Your task to perform on an android device: check android version Image 0: 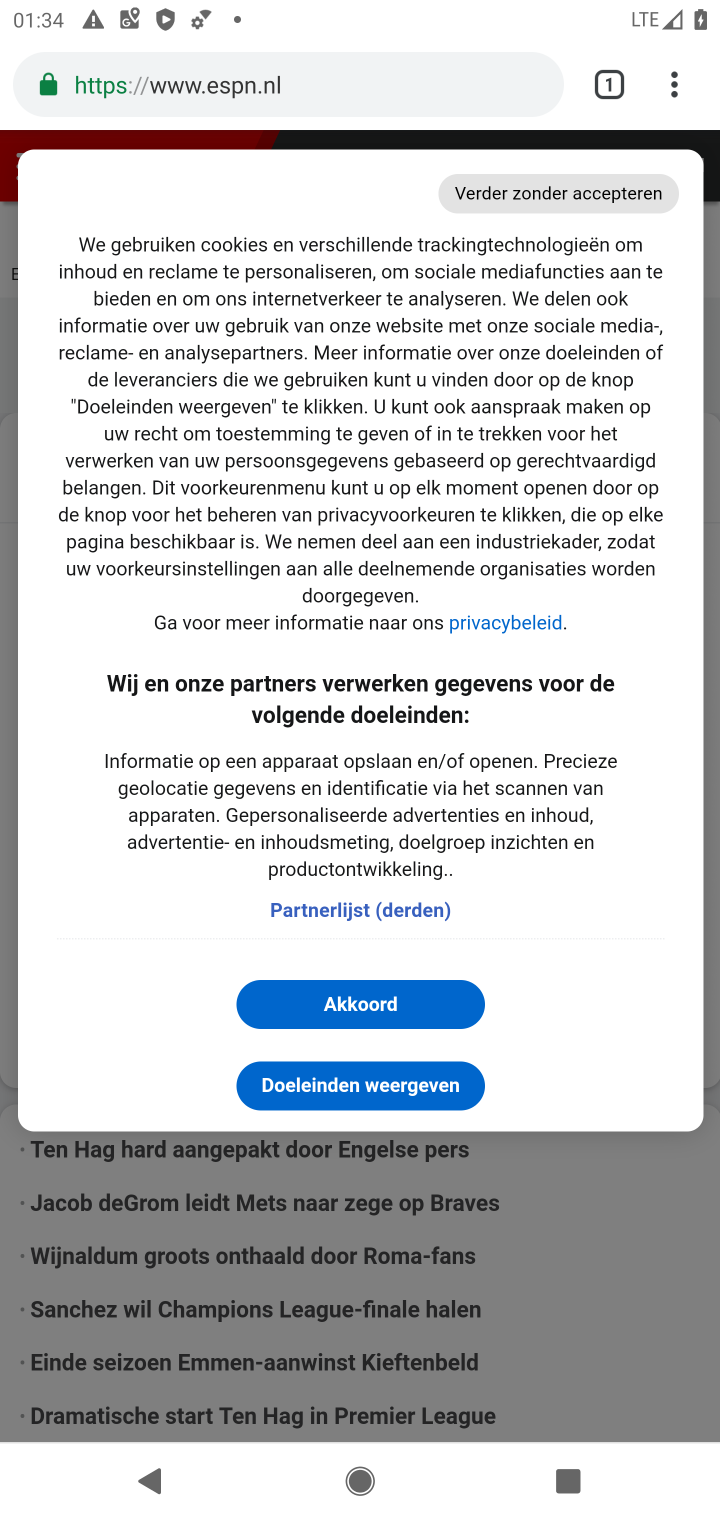
Step 0: press home button
Your task to perform on an android device: check android version Image 1: 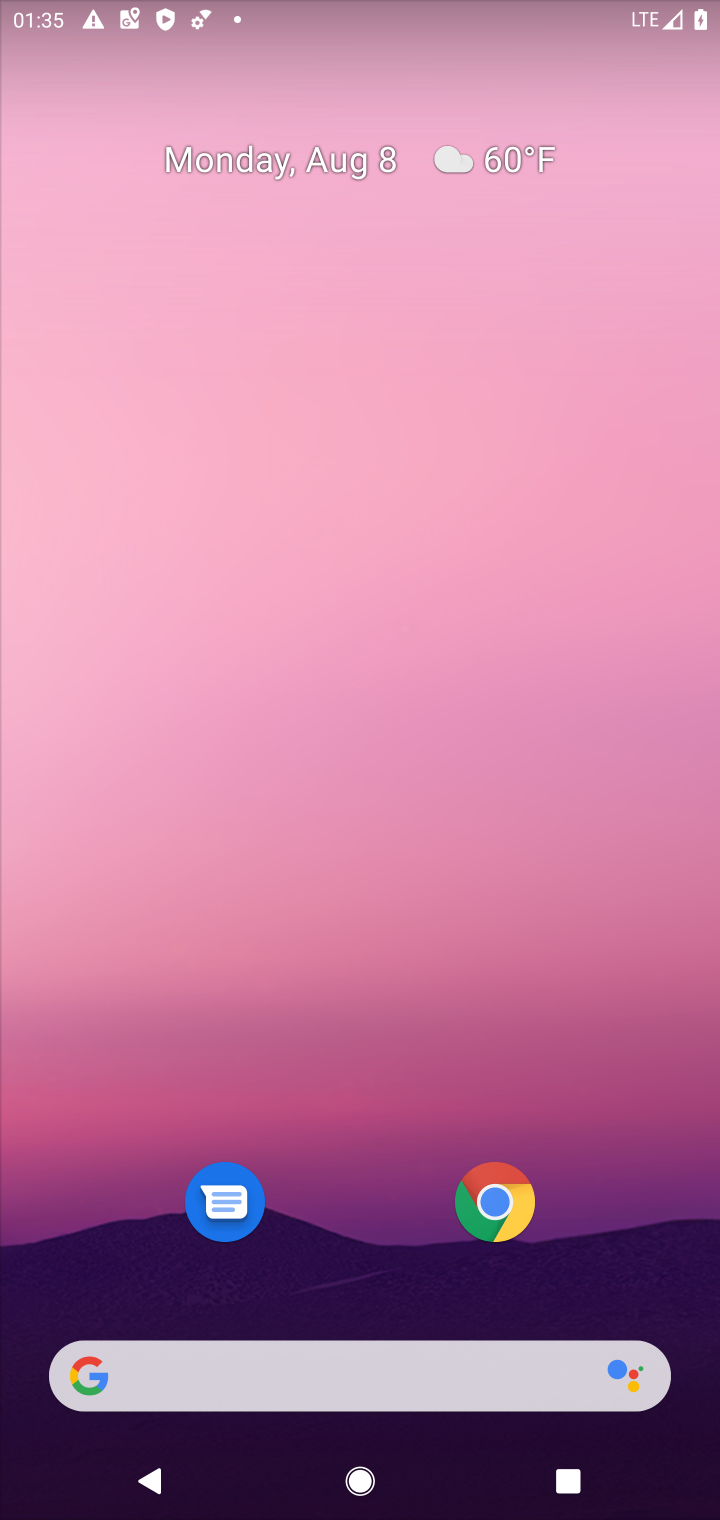
Step 1: drag from (343, 1282) to (428, 347)
Your task to perform on an android device: check android version Image 2: 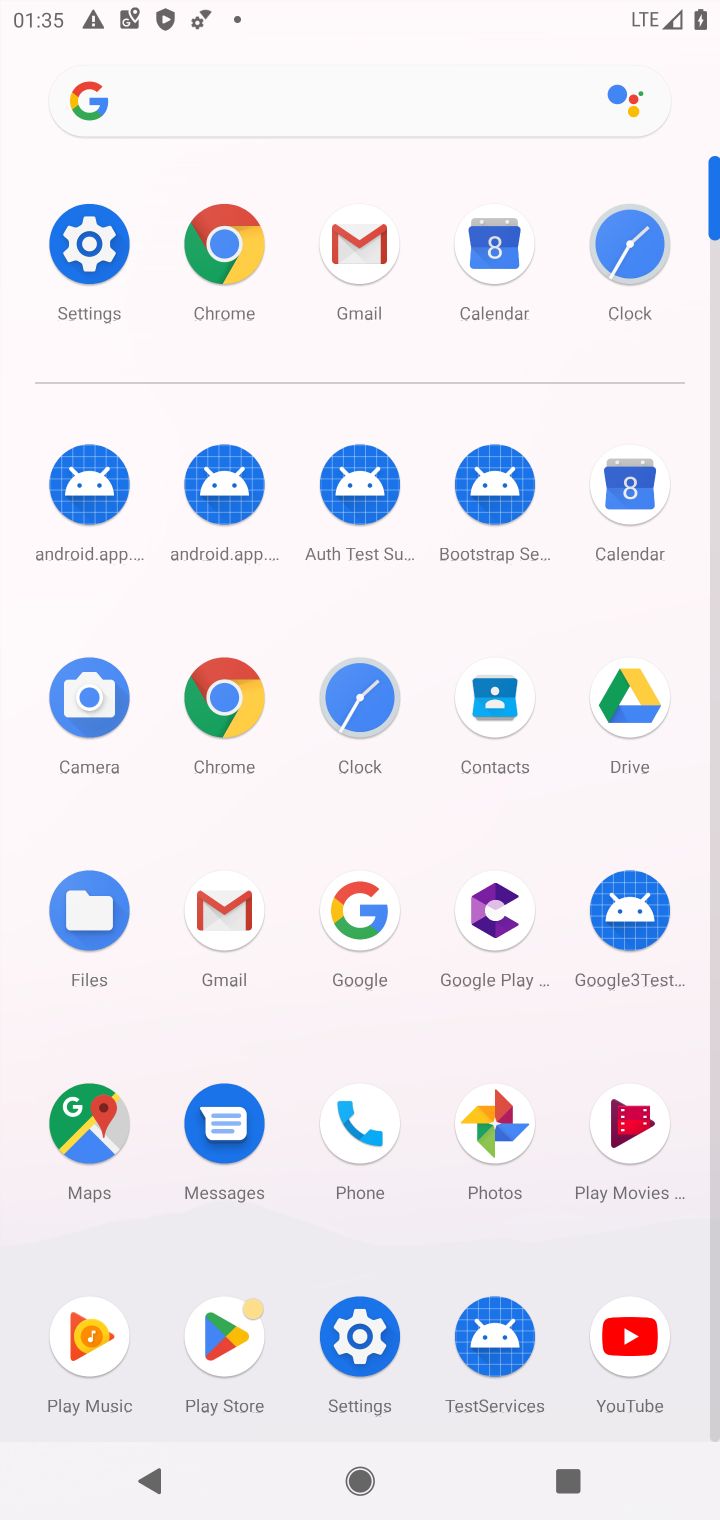
Step 2: click (364, 1335)
Your task to perform on an android device: check android version Image 3: 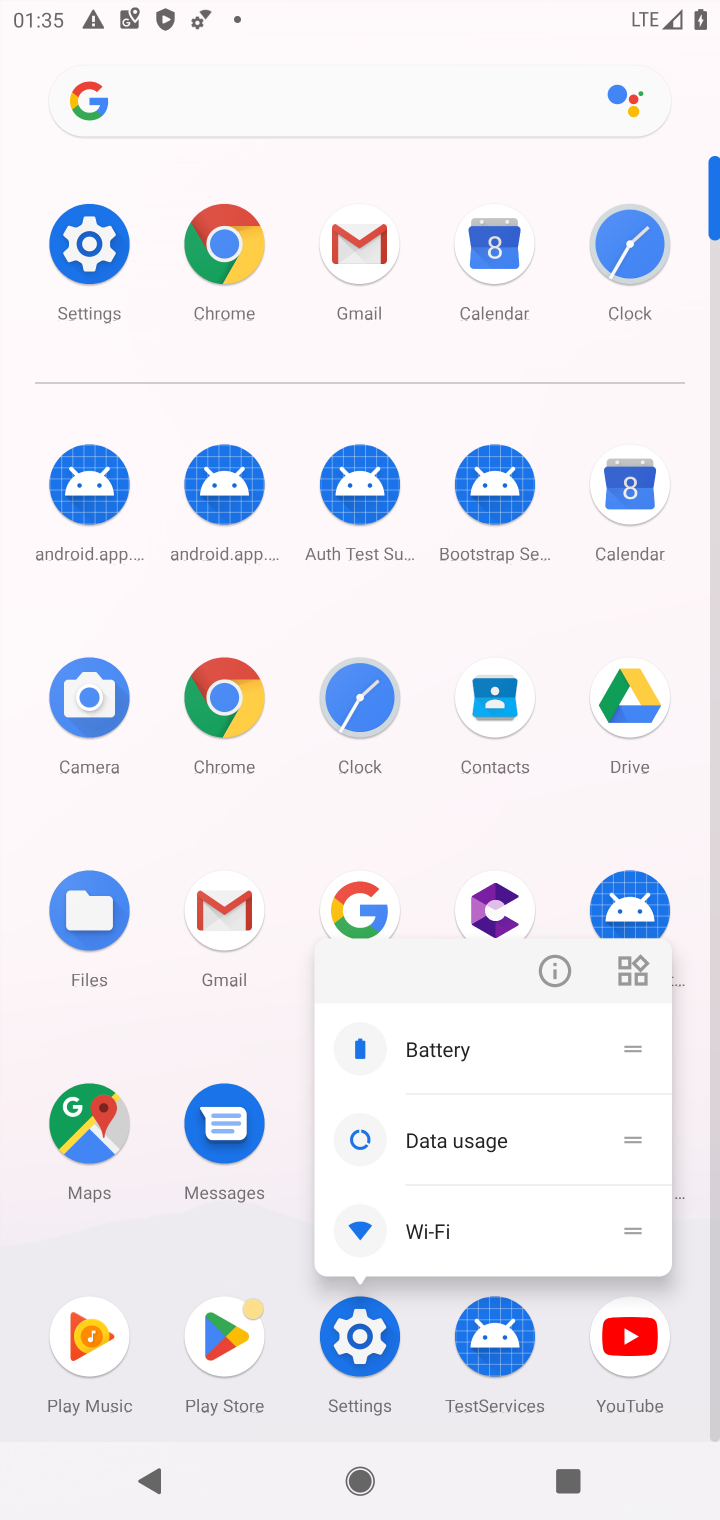
Step 3: click (364, 1335)
Your task to perform on an android device: check android version Image 4: 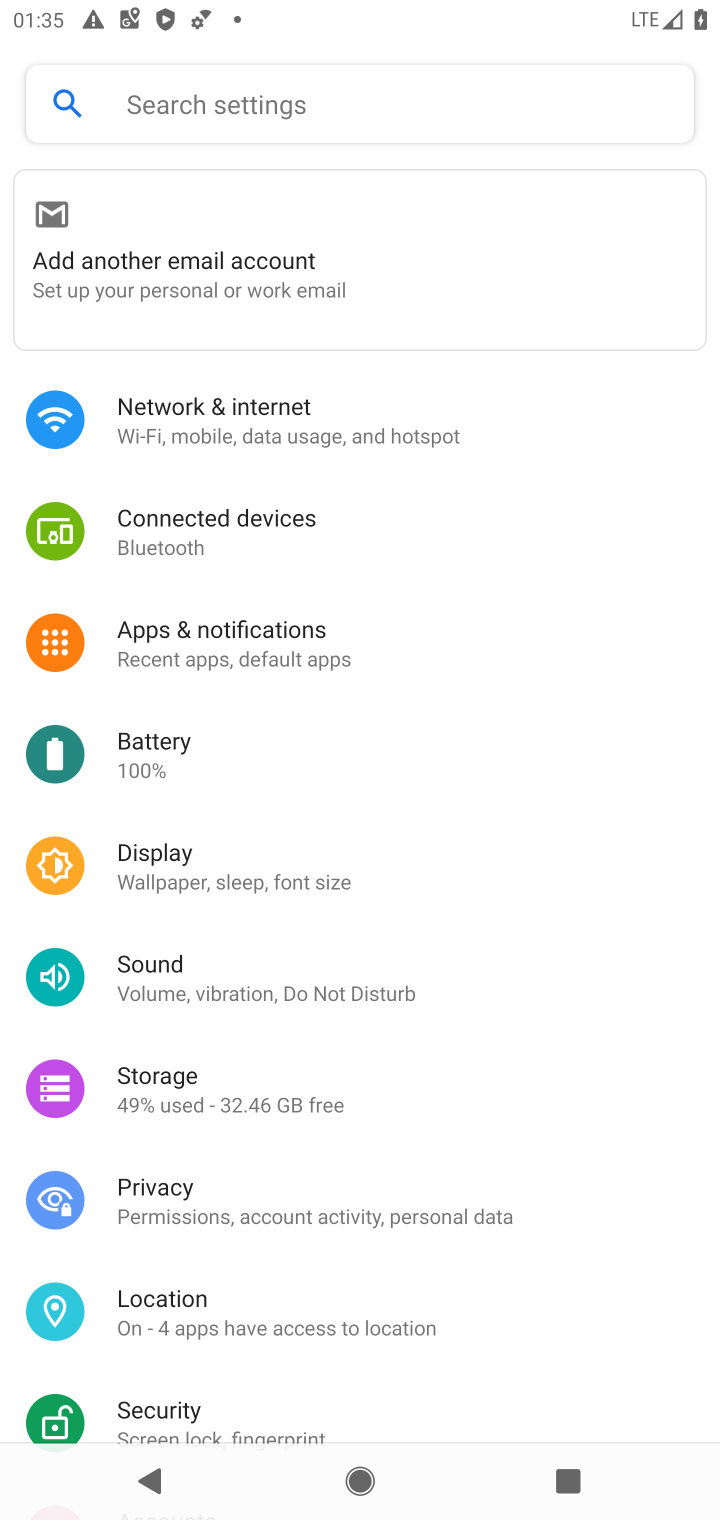
Step 4: drag from (280, 1300) to (188, 594)
Your task to perform on an android device: check android version Image 5: 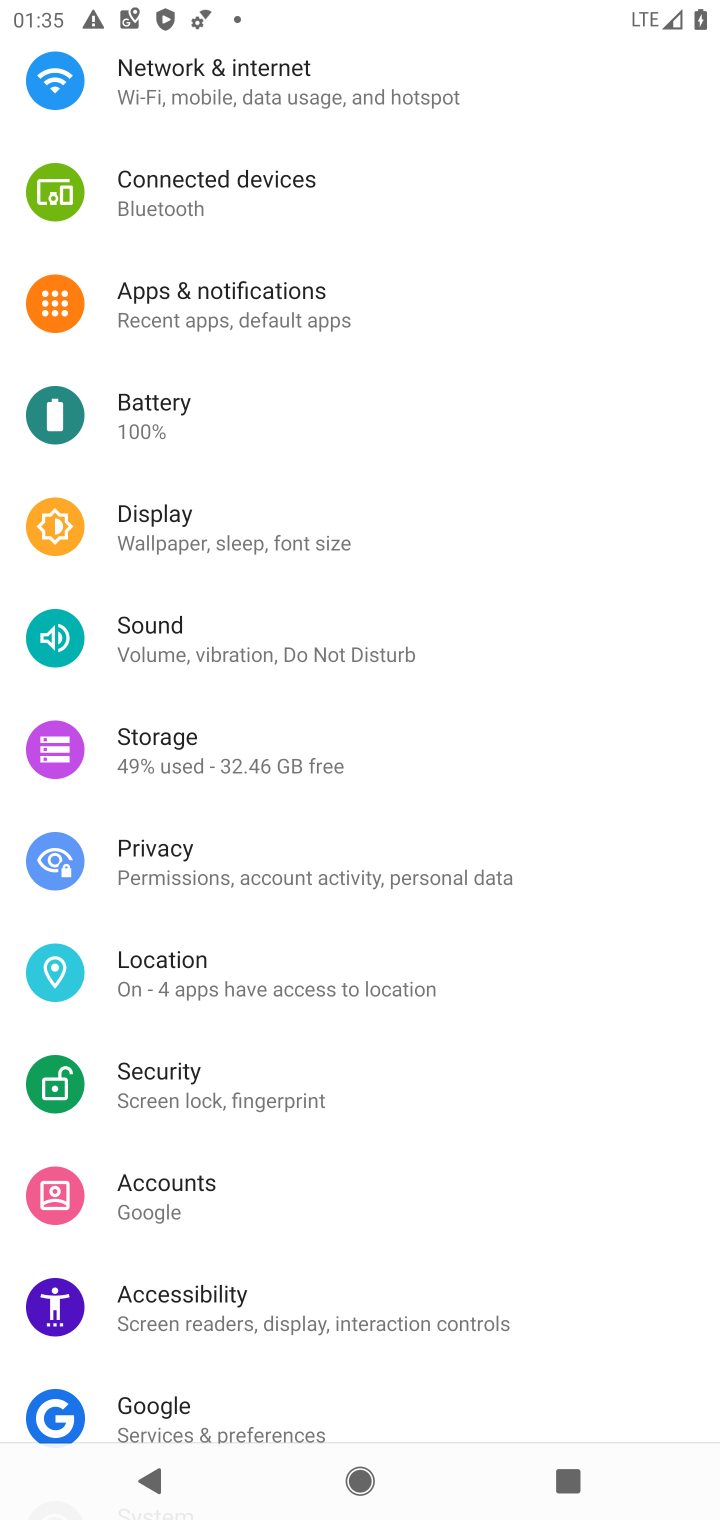
Step 5: drag from (266, 1132) to (293, 781)
Your task to perform on an android device: check android version Image 6: 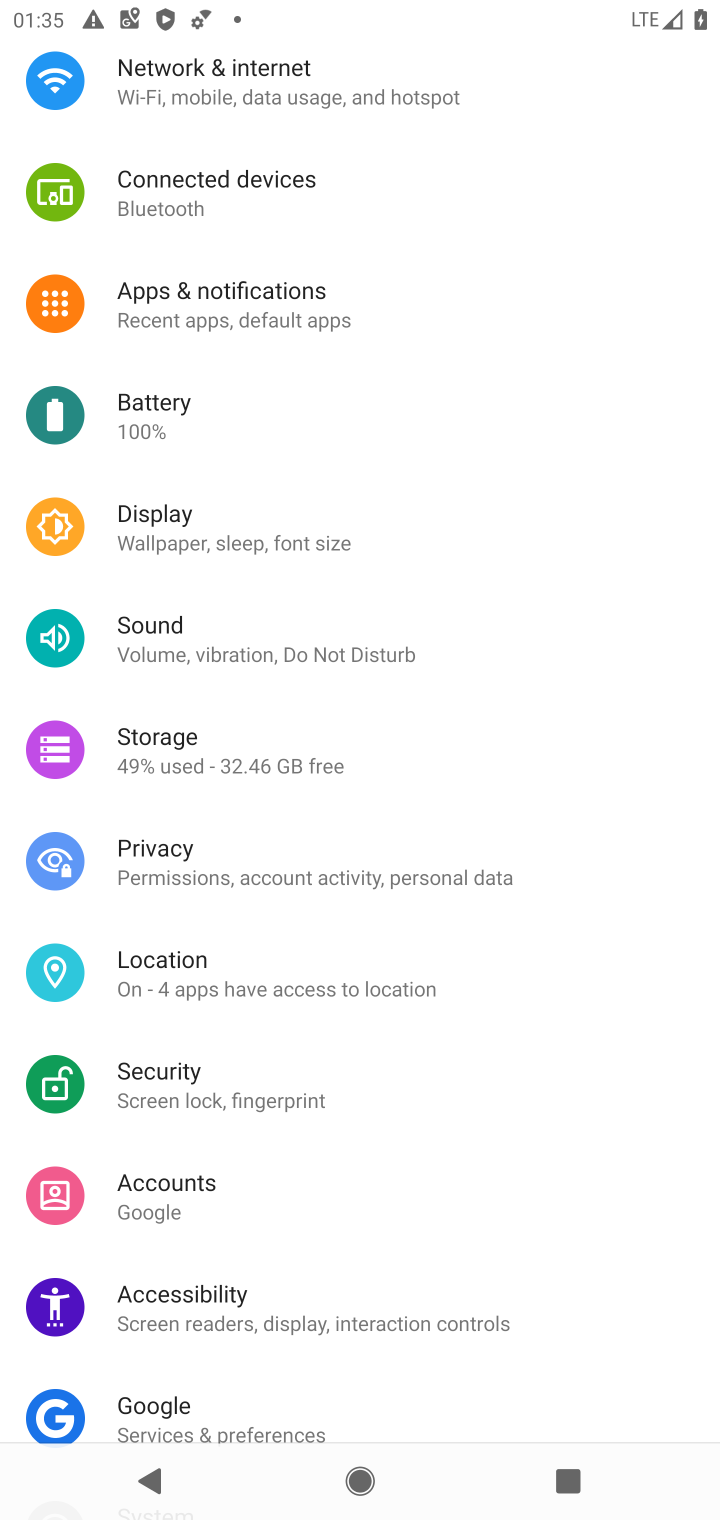
Step 6: drag from (202, 1122) to (207, 744)
Your task to perform on an android device: check android version Image 7: 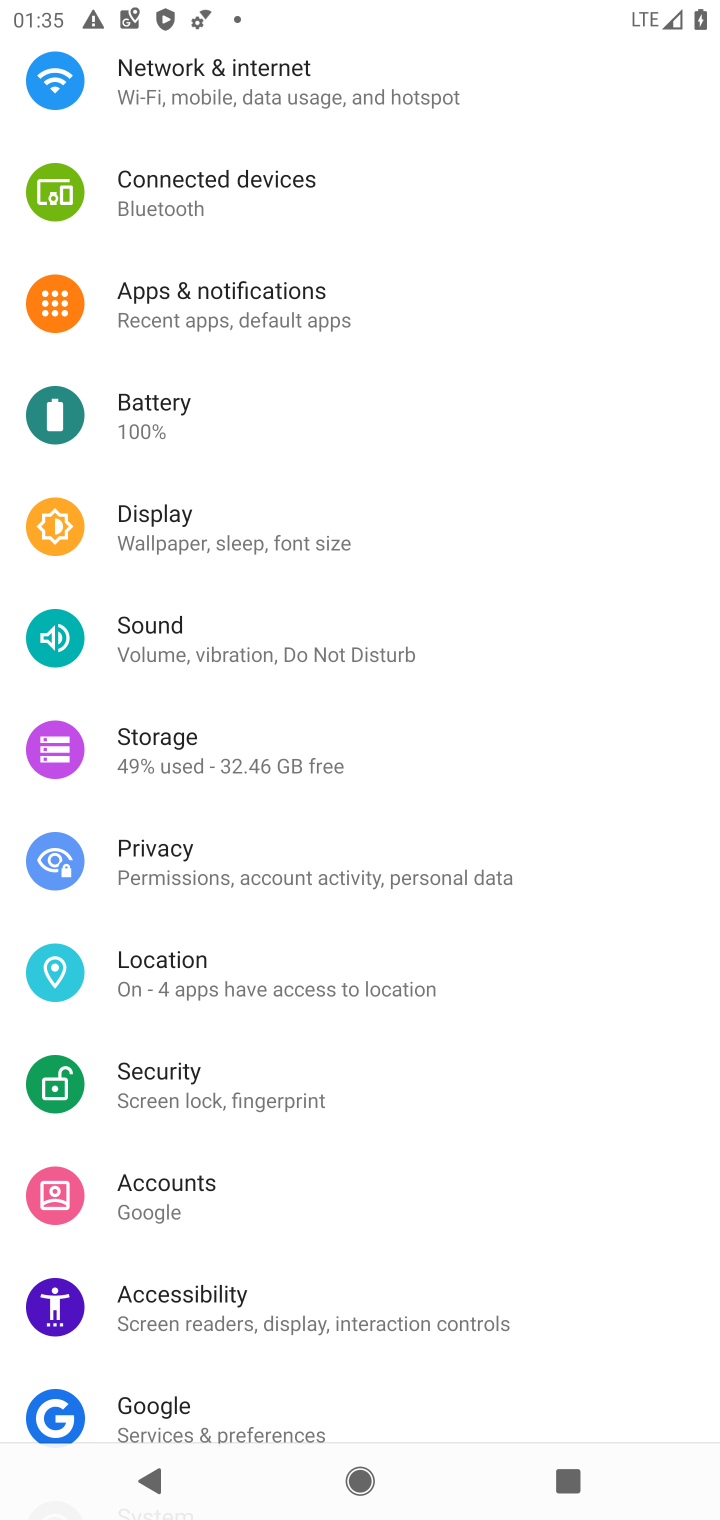
Step 7: drag from (308, 1080) to (447, 415)
Your task to perform on an android device: check android version Image 8: 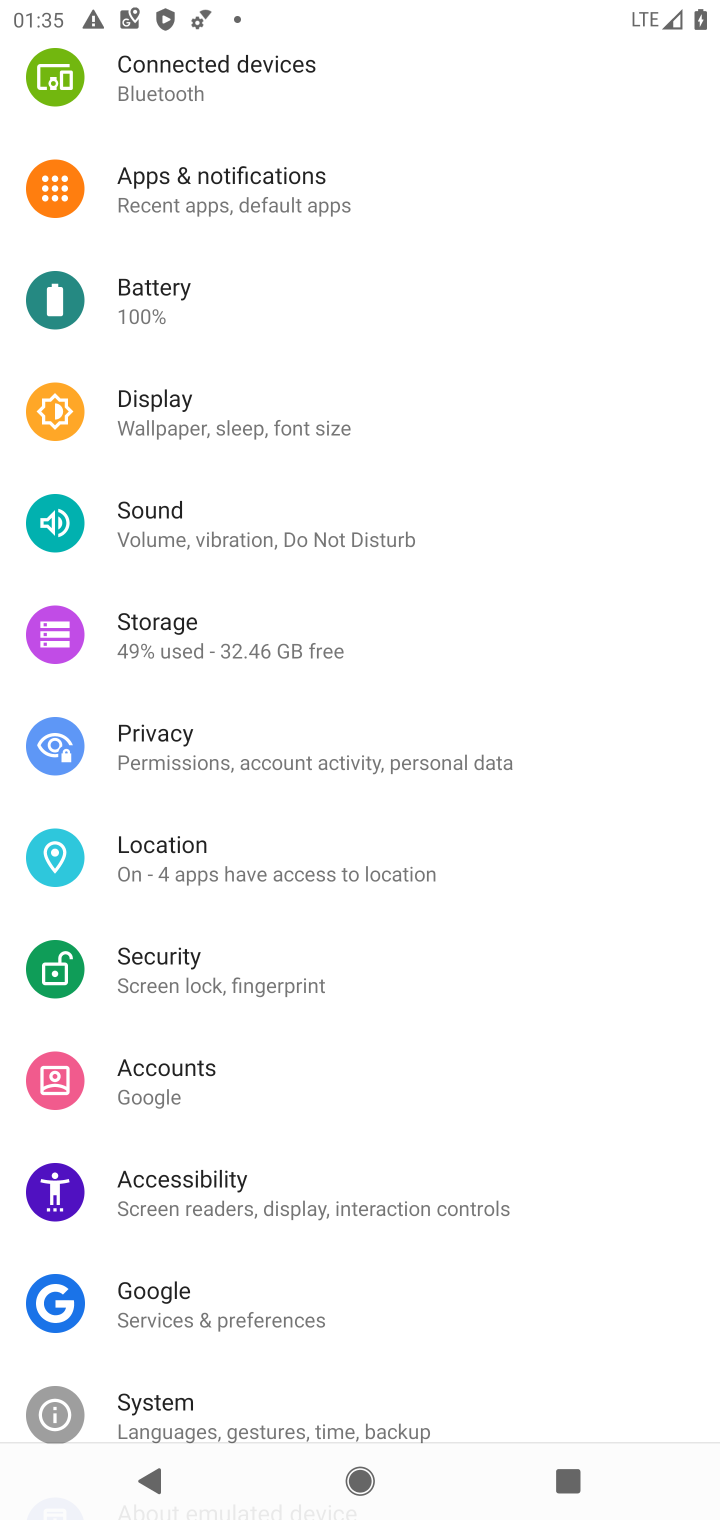
Step 8: drag from (370, 1317) to (453, 569)
Your task to perform on an android device: check android version Image 9: 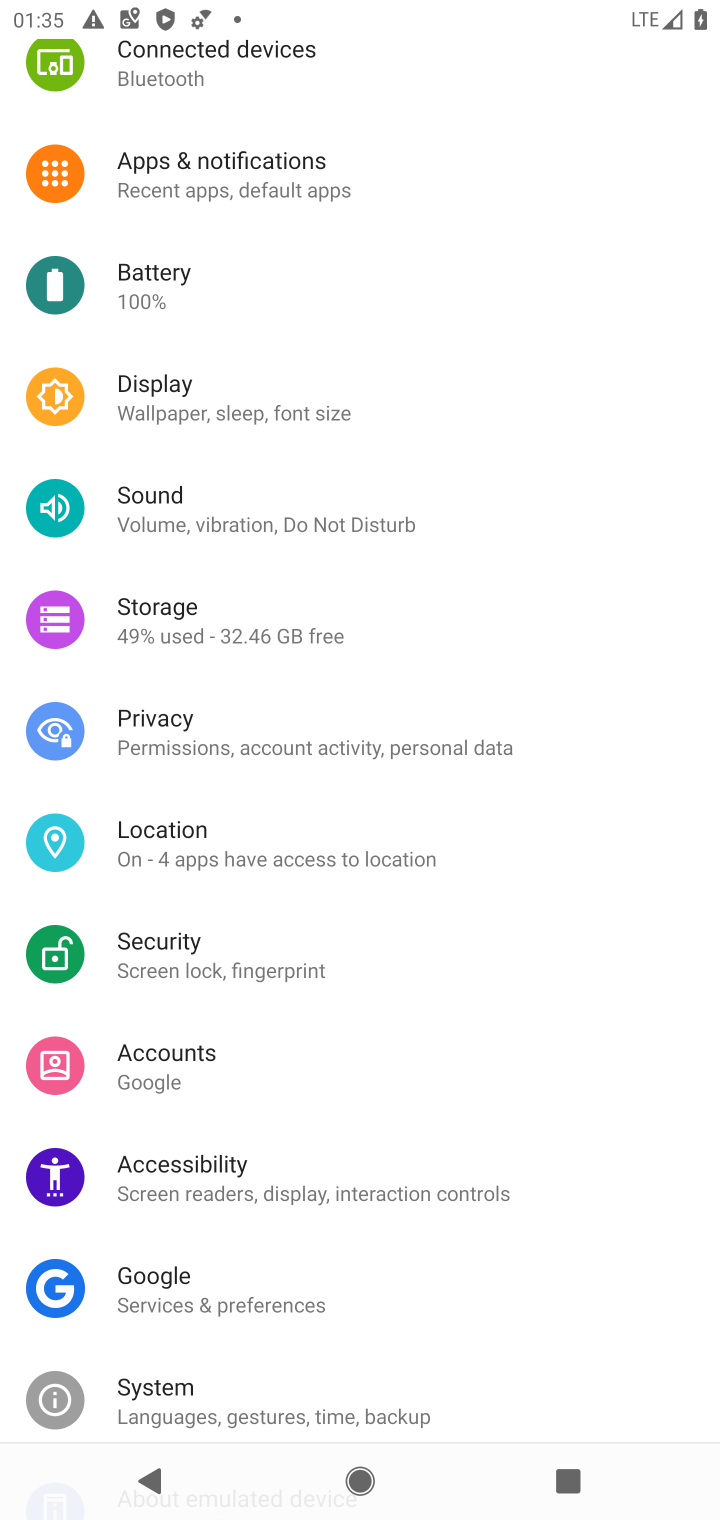
Step 9: drag from (140, 1110) to (63, 691)
Your task to perform on an android device: check android version Image 10: 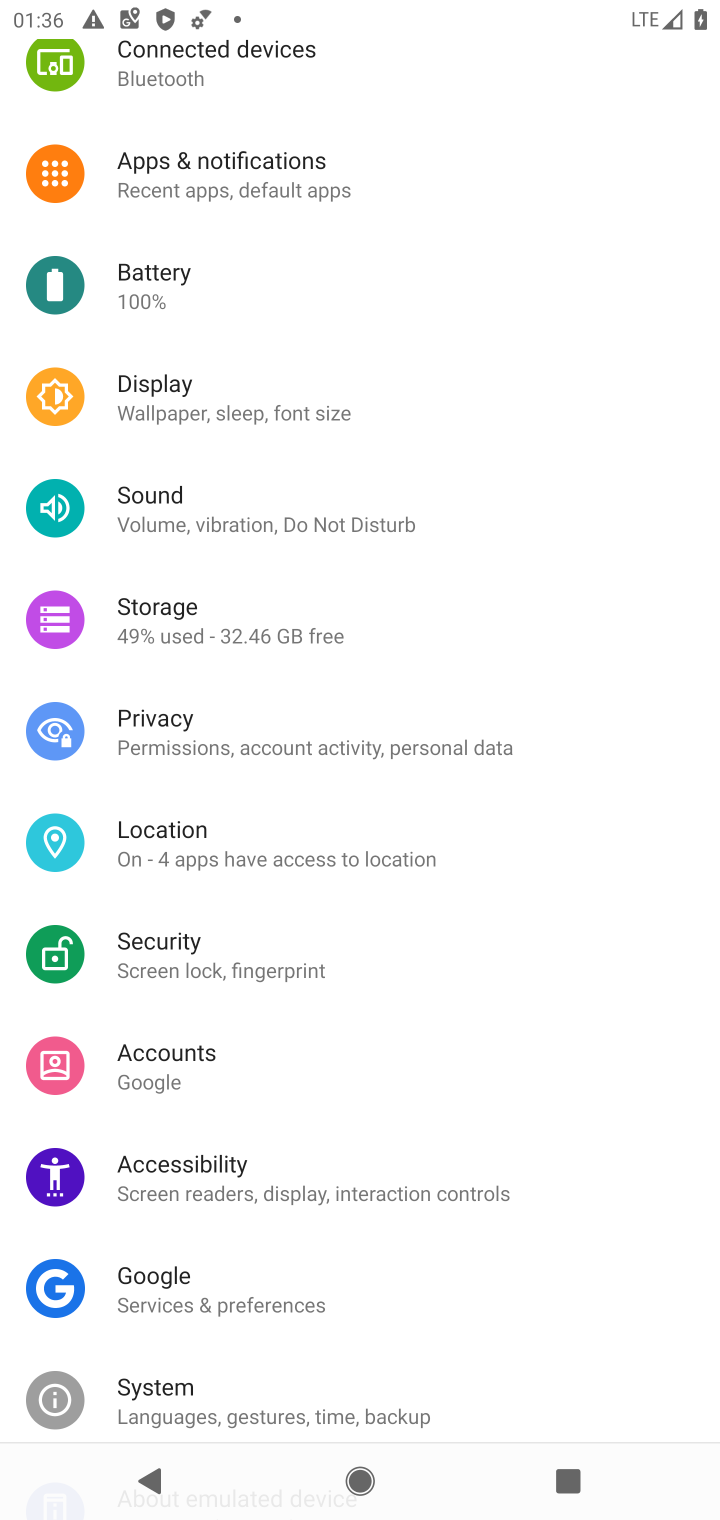
Step 10: drag from (252, 272) to (252, 105)
Your task to perform on an android device: check android version Image 11: 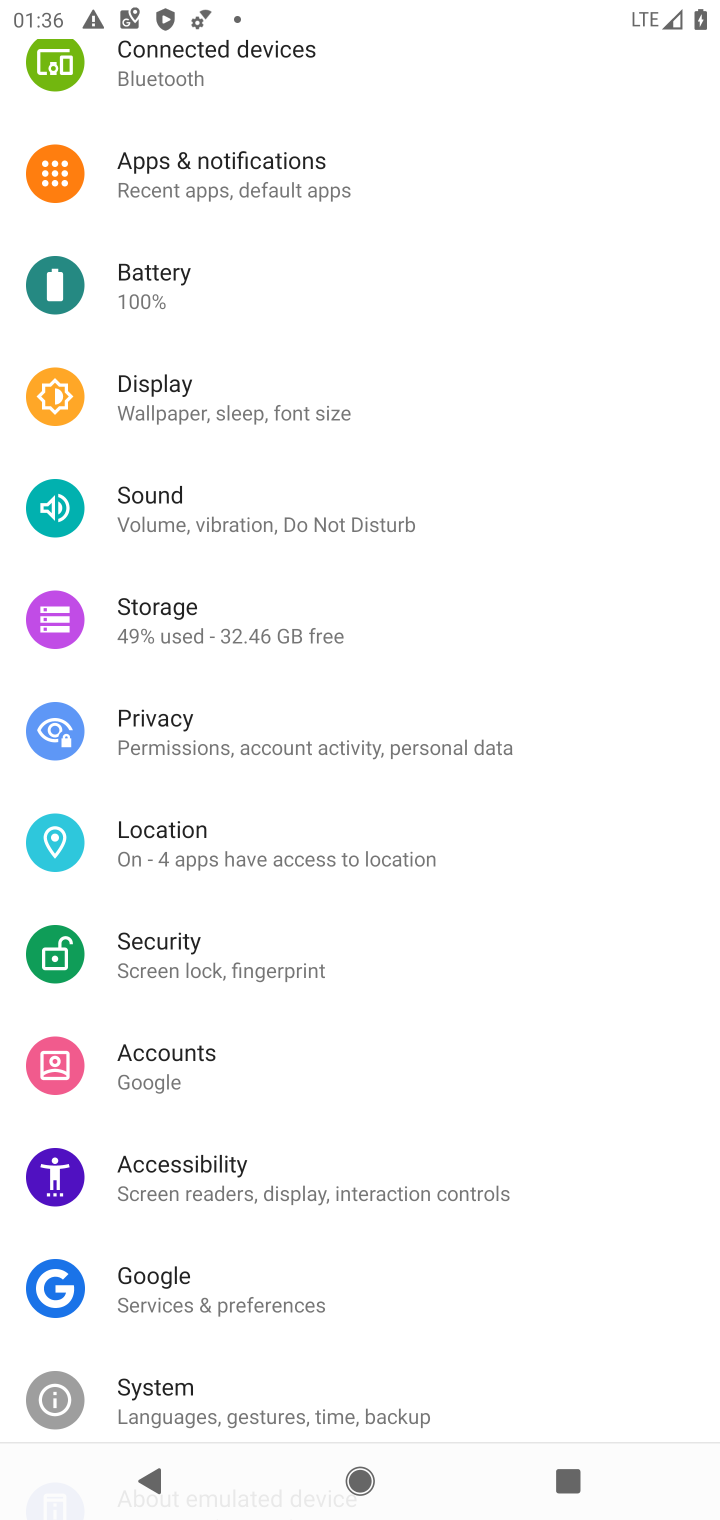
Step 11: drag from (256, 804) to (209, 179)
Your task to perform on an android device: check android version Image 12: 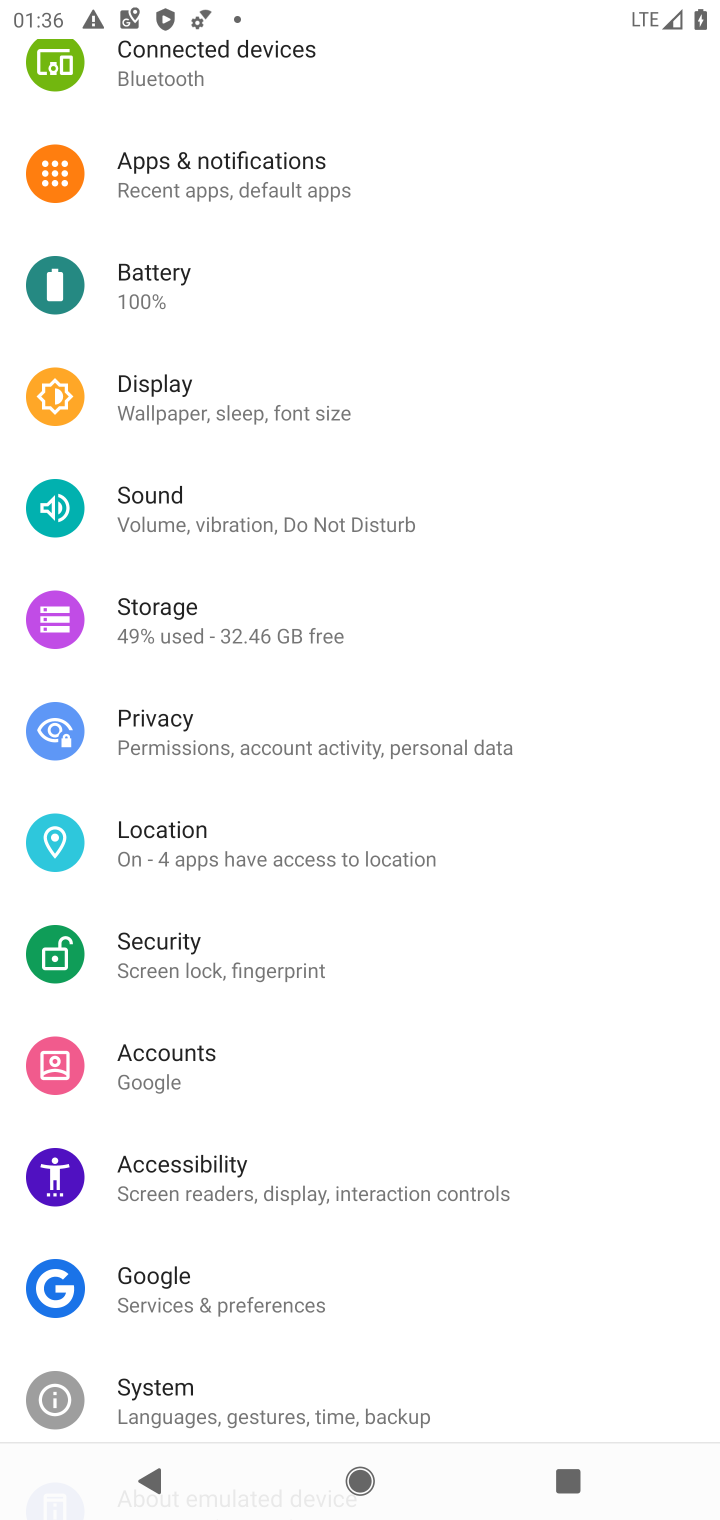
Step 12: drag from (274, 1325) to (161, 335)
Your task to perform on an android device: check android version Image 13: 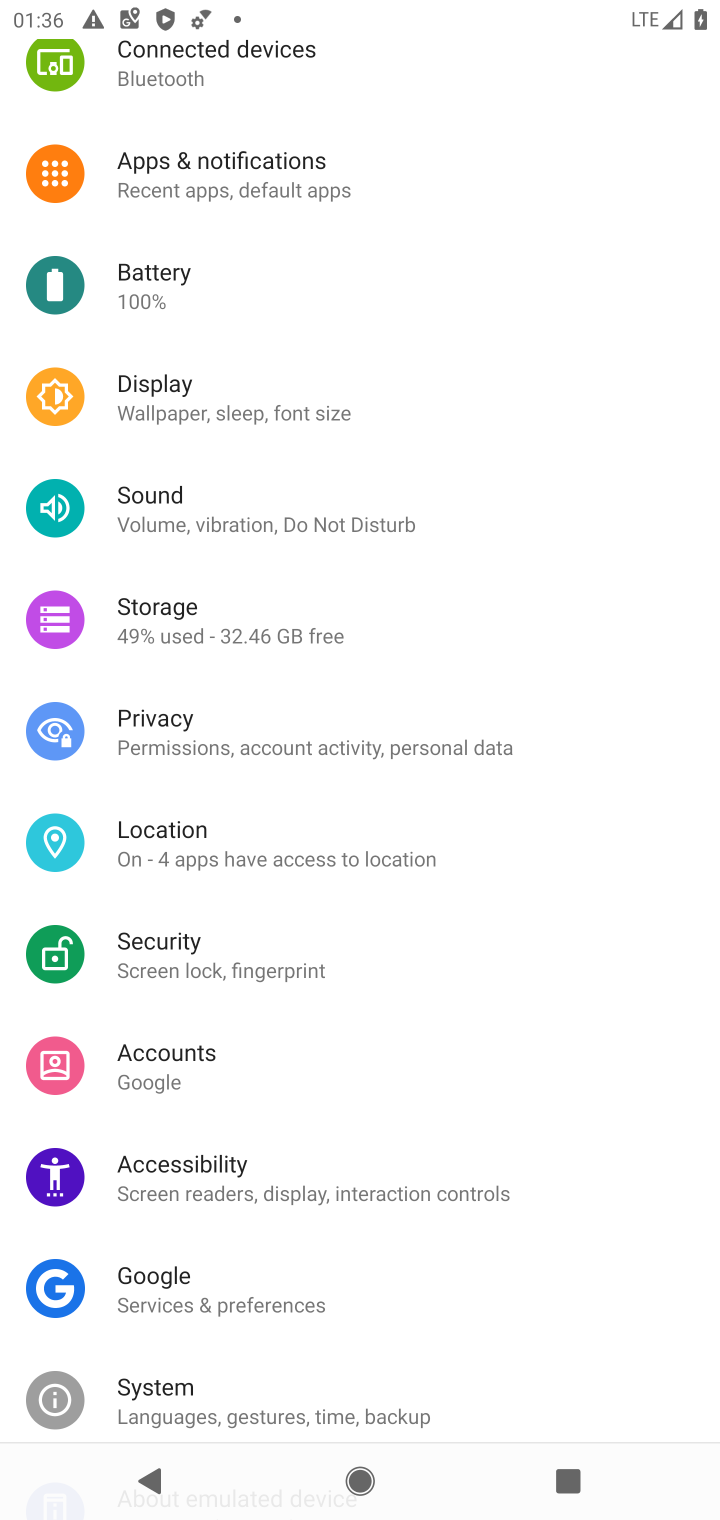
Step 13: drag from (267, 1076) to (190, 496)
Your task to perform on an android device: check android version Image 14: 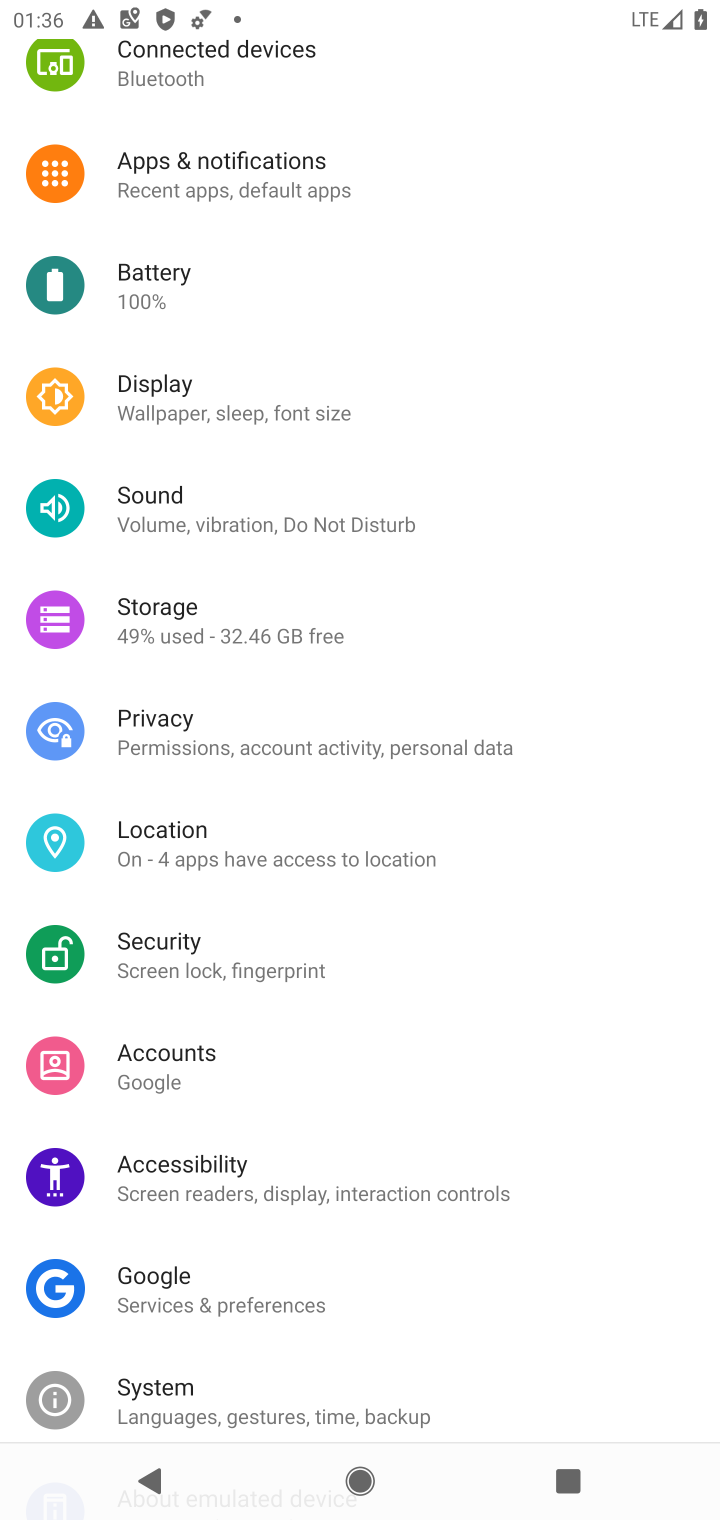
Step 14: drag from (271, 1271) to (230, 621)
Your task to perform on an android device: check android version Image 15: 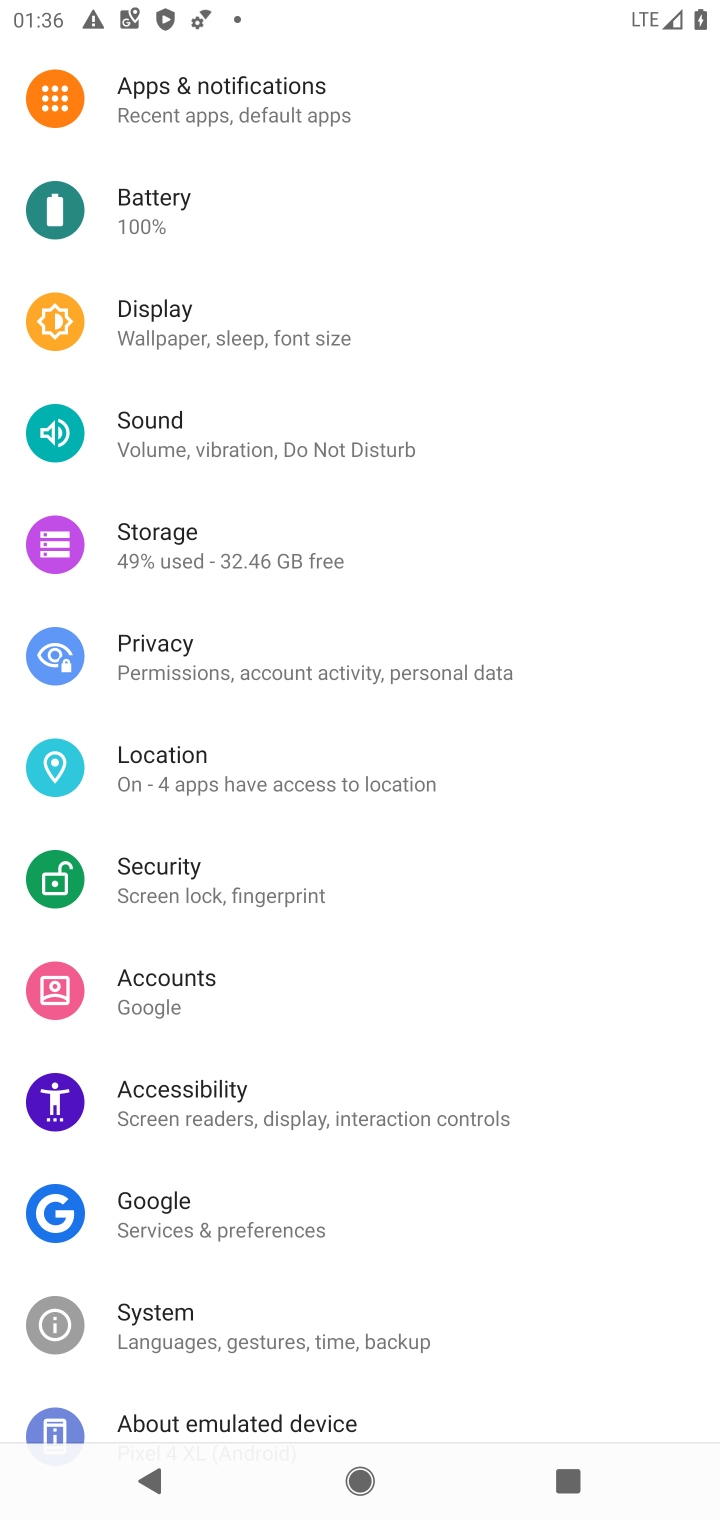
Step 15: click (196, 1412)
Your task to perform on an android device: check android version Image 16: 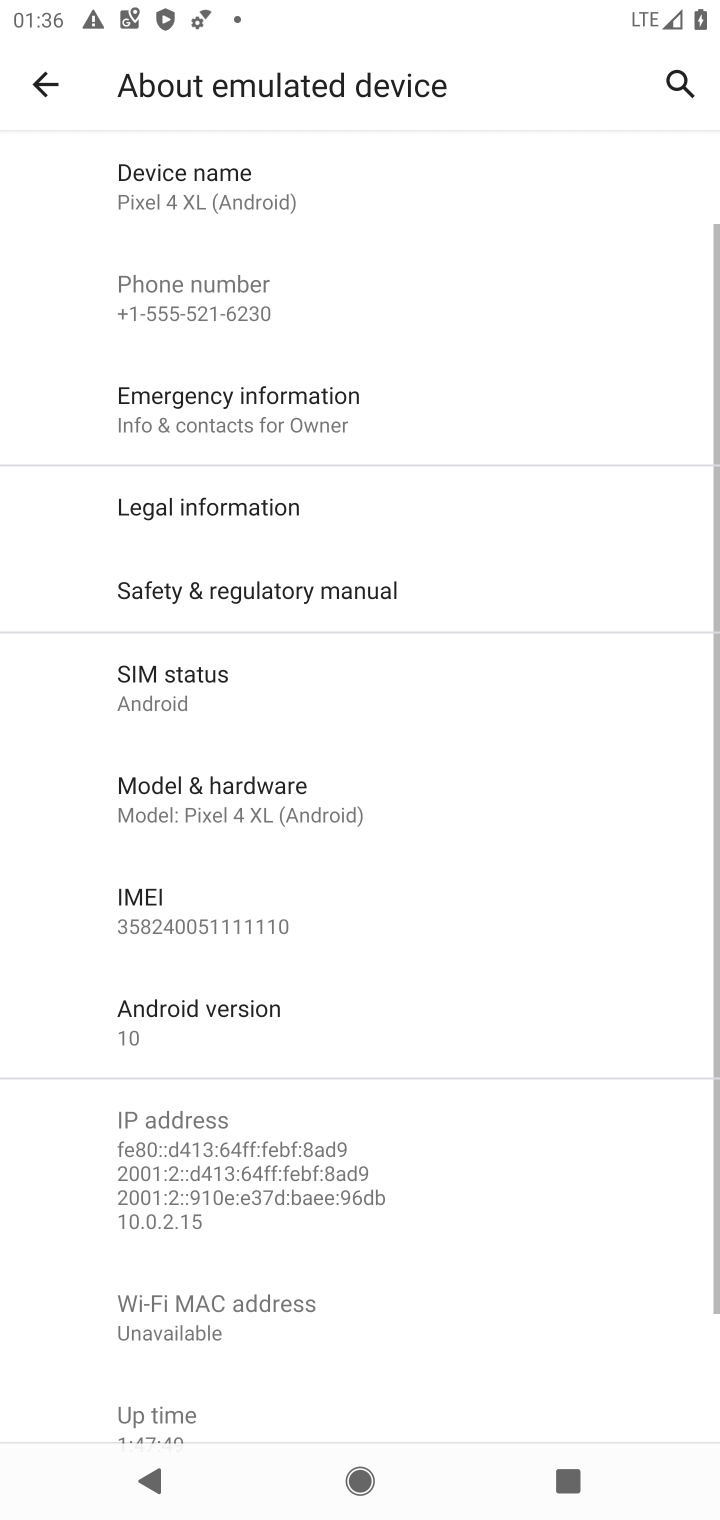
Step 16: task complete